Your task to perform on an android device: move a message to another label in the gmail app Image 0: 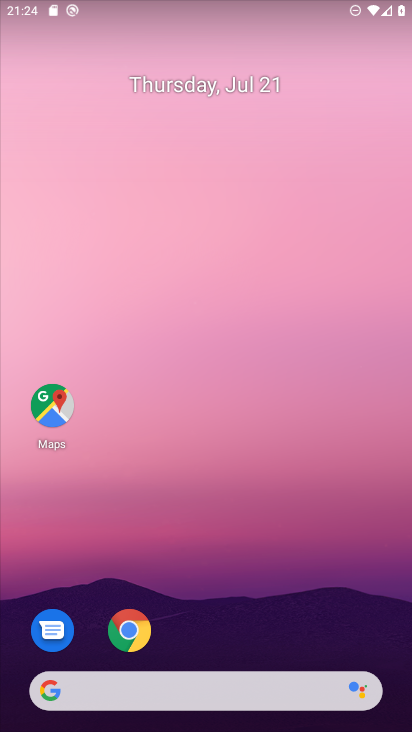
Step 0: drag from (346, 619) to (261, 96)
Your task to perform on an android device: move a message to another label in the gmail app Image 1: 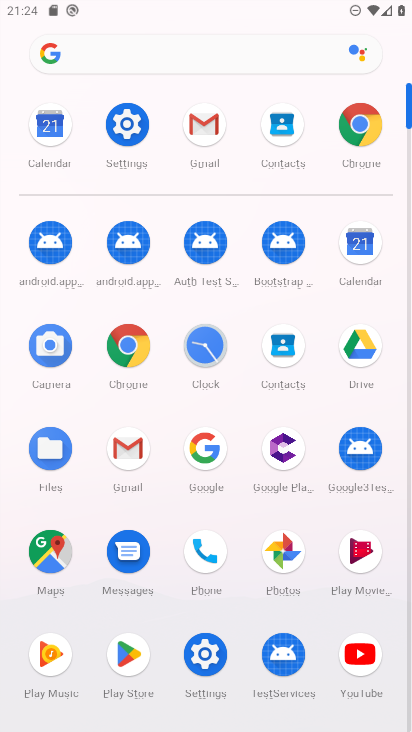
Step 1: click (213, 129)
Your task to perform on an android device: move a message to another label in the gmail app Image 2: 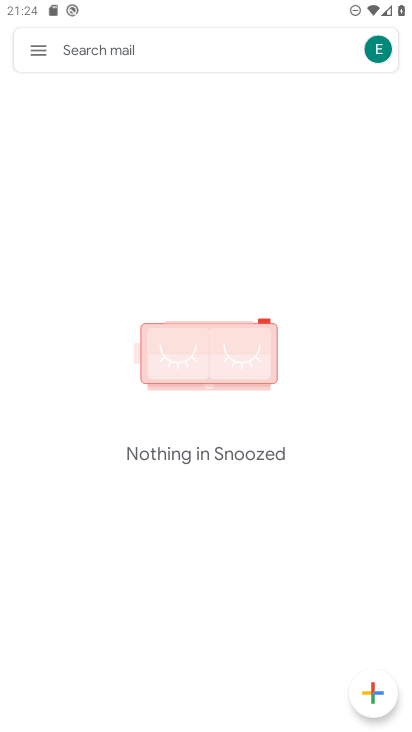
Step 2: click (43, 49)
Your task to perform on an android device: move a message to another label in the gmail app Image 3: 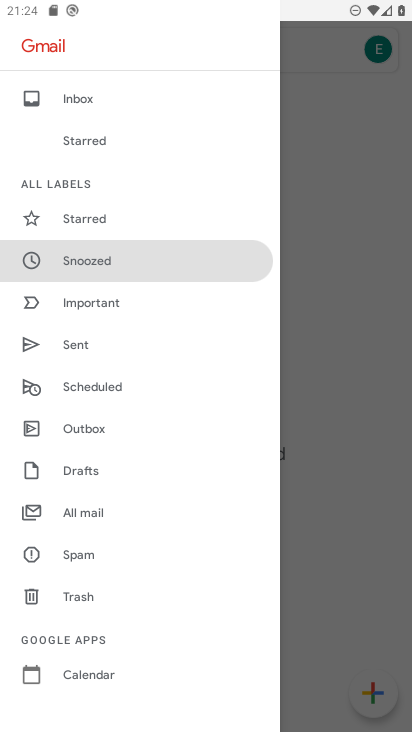
Step 3: click (93, 501)
Your task to perform on an android device: move a message to another label in the gmail app Image 4: 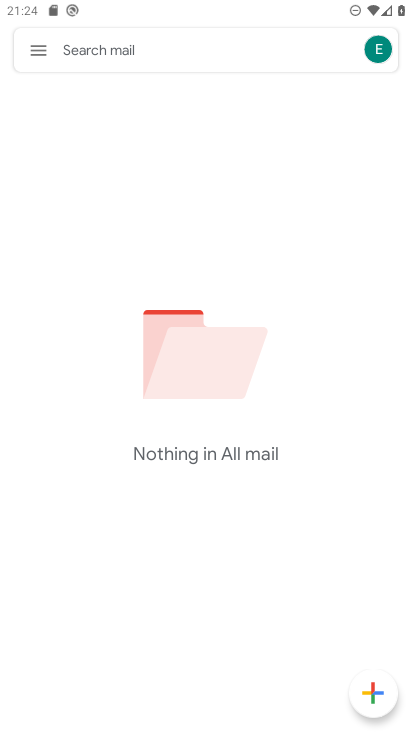
Step 4: task complete